Your task to perform on an android device: uninstall "Google Chat" Image 0: 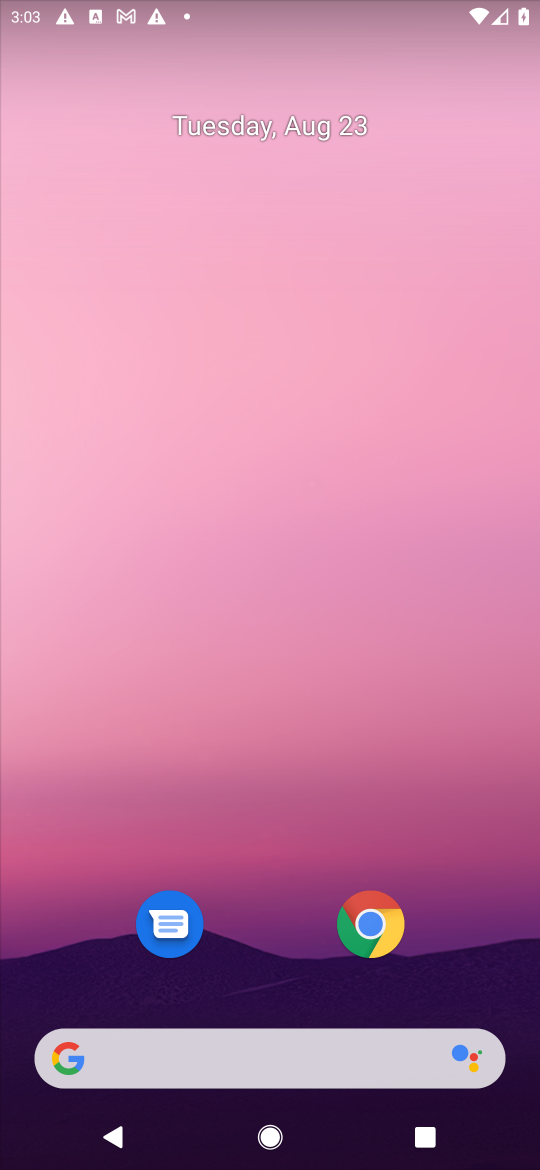
Step 0: press home button
Your task to perform on an android device: uninstall "Google Chat" Image 1: 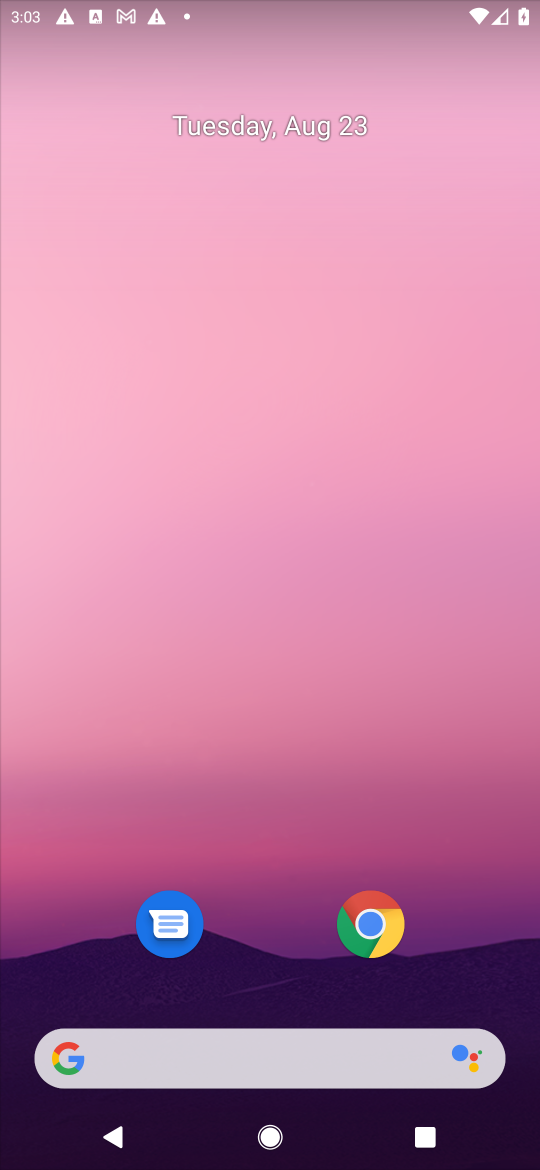
Step 1: drag from (463, 933) to (435, 139)
Your task to perform on an android device: uninstall "Google Chat" Image 2: 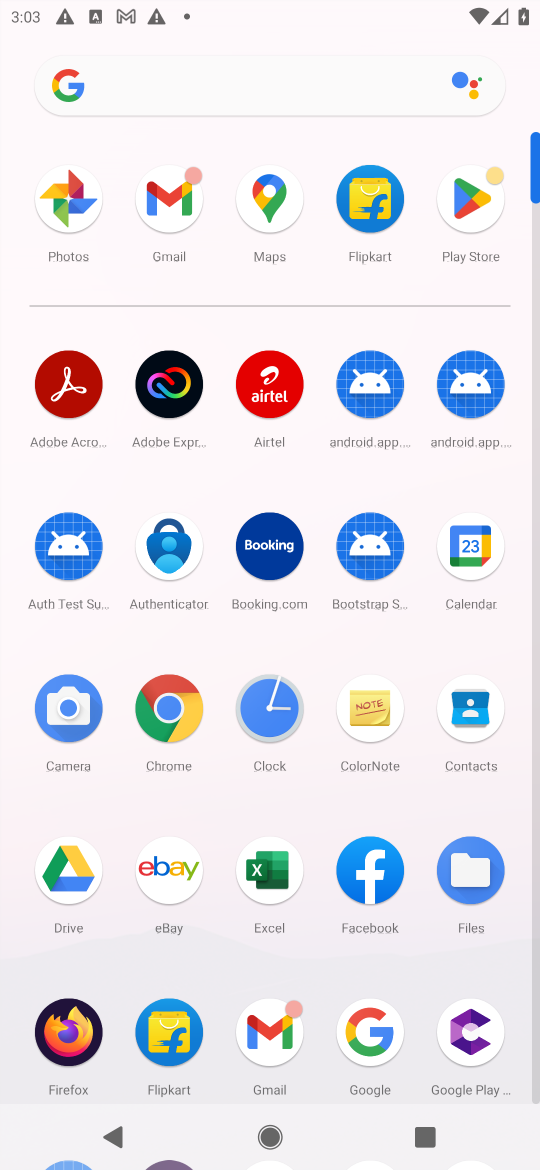
Step 2: click (477, 186)
Your task to perform on an android device: uninstall "Google Chat" Image 3: 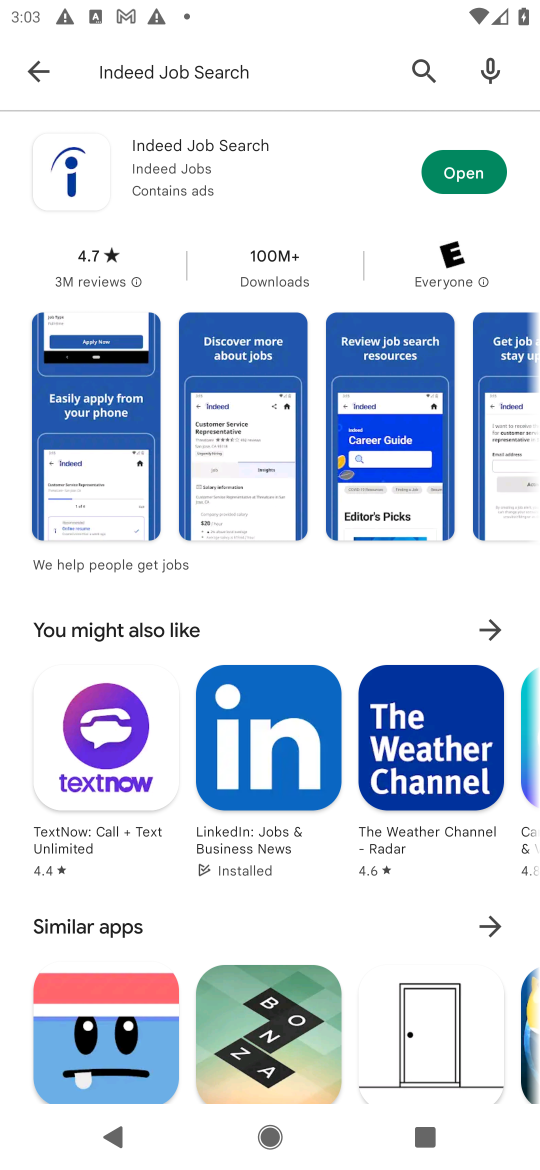
Step 3: press back button
Your task to perform on an android device: uninstall "Google Chat" Image 4: 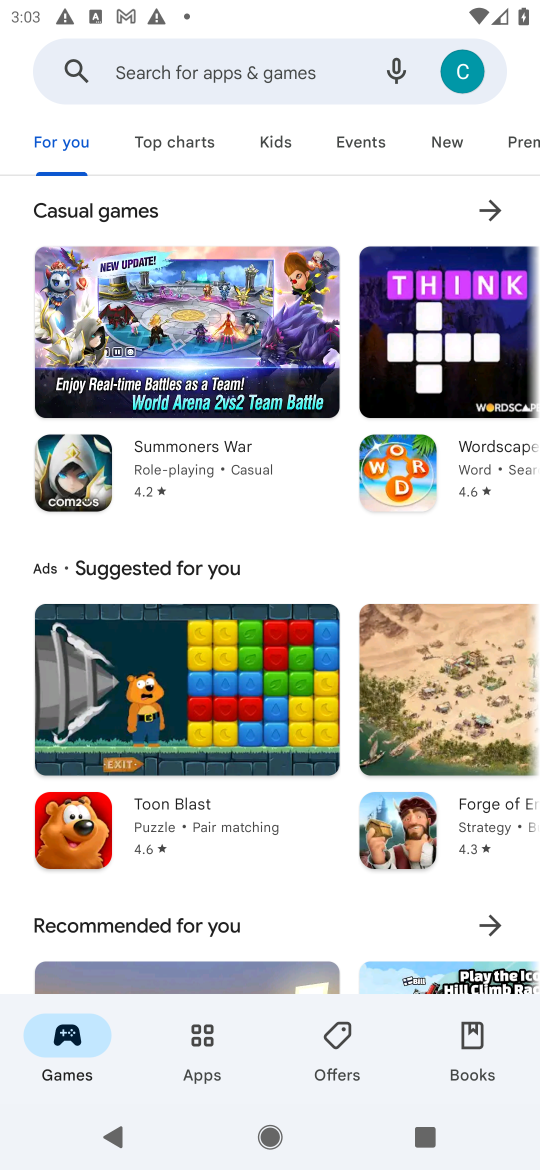
Step 4: click (279, 63)
Your task to perform on an android device: uninstall "Google Chat" Image 5: 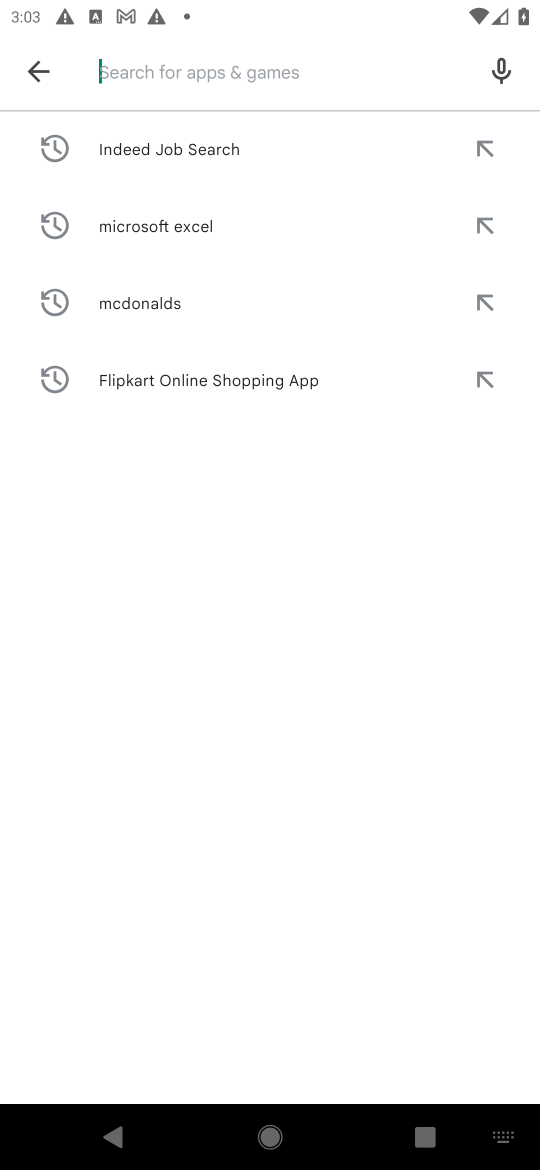
Step 5: press enter
Your task to perform on an android device: uninstall "Google Chat" Image 6: 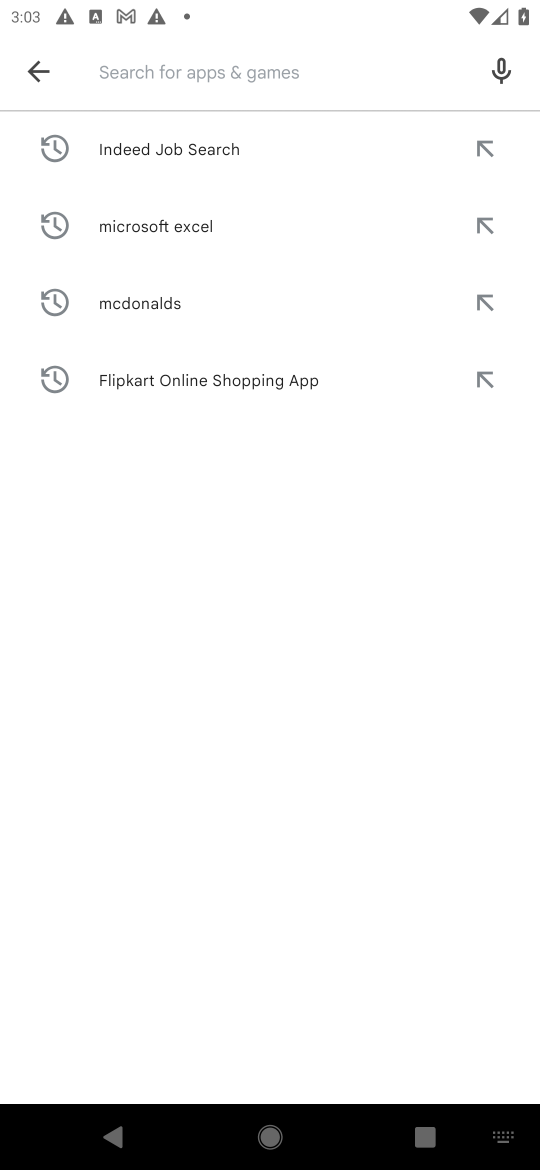
Step 6: type "google chat"
Your task to perform on an android device: uninstall "Google Chat" Image 7: 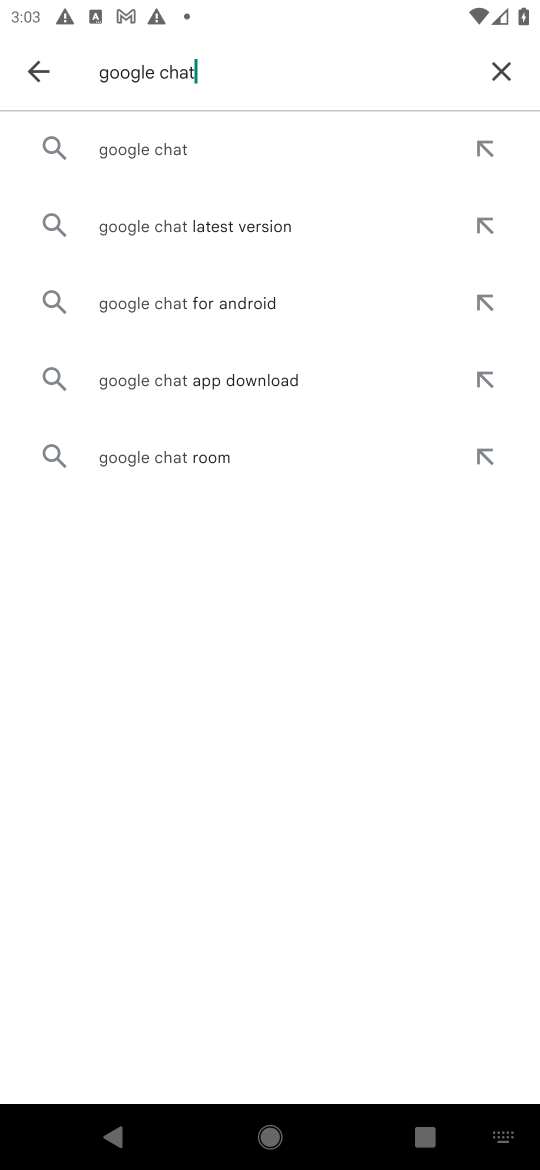
Step 7: click (138, 151)
Your task to perform on an android device: uninstall "Google Chat" Image 8: 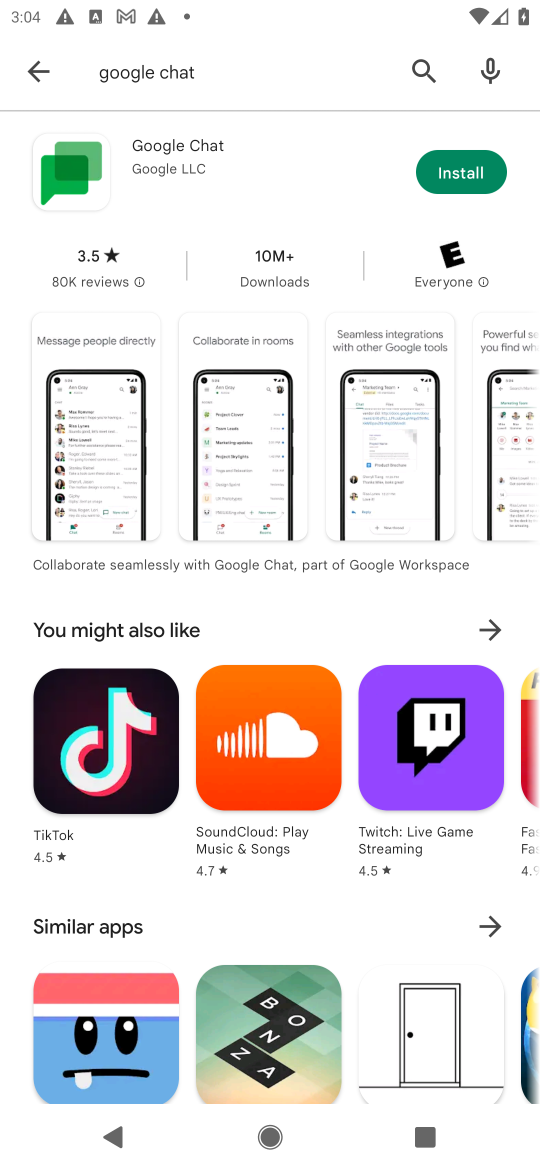
Step 8: task complete